Your task to perform on an android device: open a new tab in the chrome app Image 0: 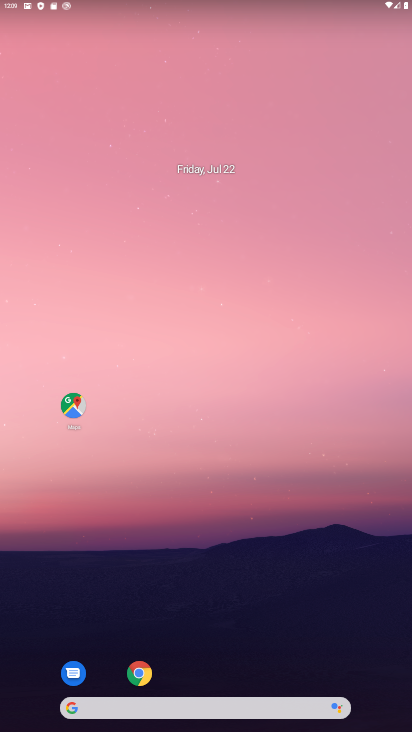
Step 0: click (292, 650)
Your task to perform on an android device: open a new tab in the chrome app Image 1: 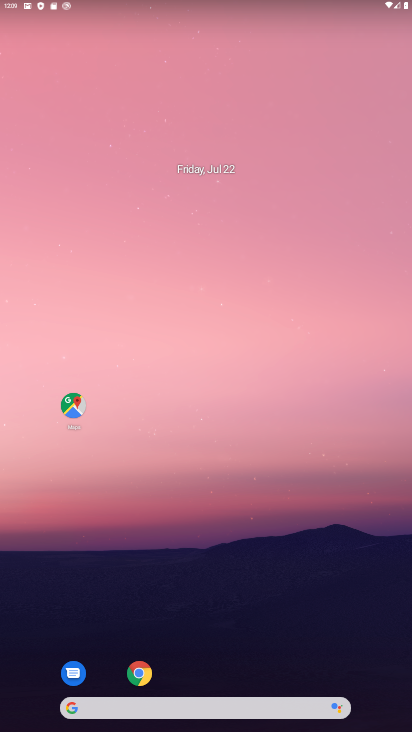
Step 1: click (142, 665)
Your task to perform on an android device: open a new tab in the chrome app Image 2: 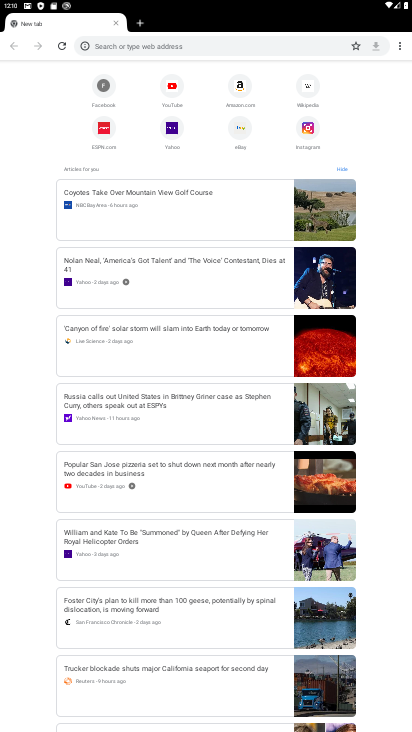
Step 2: click (399, 38)
Your task to perform on an android device: open a new tab in the chrome app Image 3: 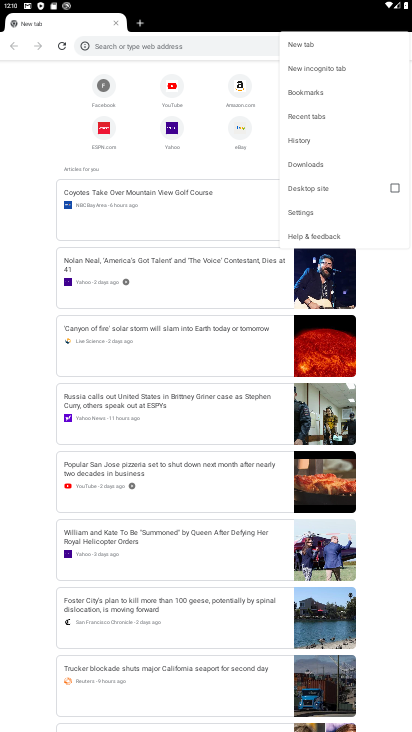
Step 3: click (294, 43)
Your task to perform on an android device: open a new tab in the chrome app Image 4: 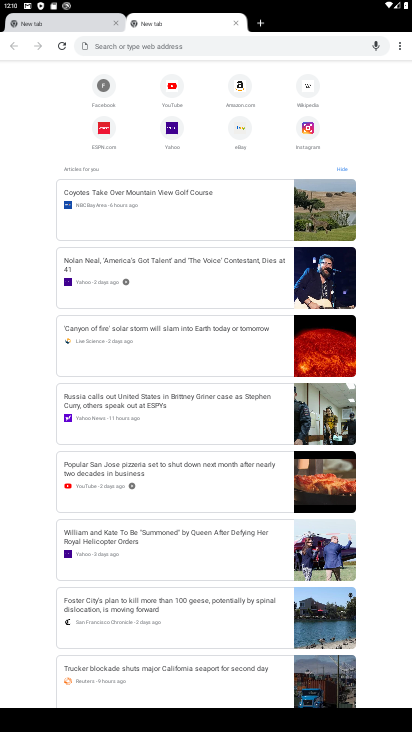
Step 4: task complete